Your task to perform on an android device: change your default location settings in chrome Image 0: 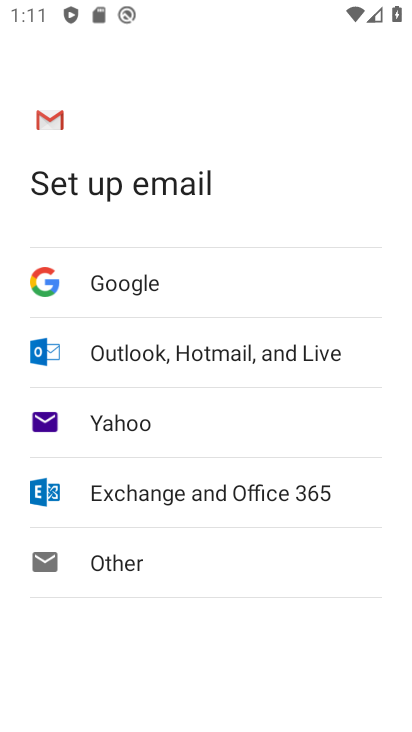
Step 0: press back button
Your task to perform on an android device: change your default location settings in chrome Image 1: 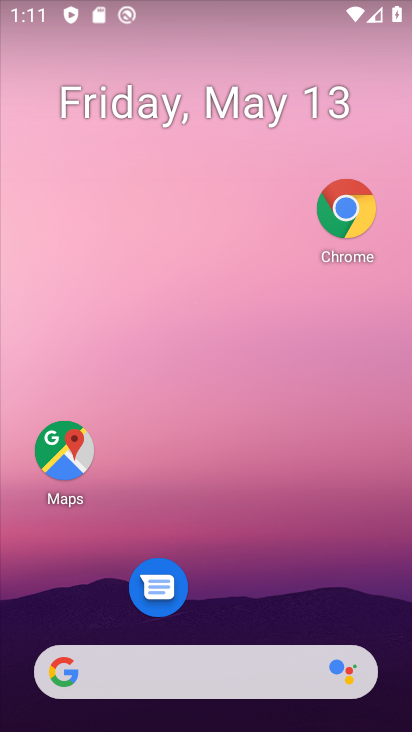
Step 1: click (350, 205)
Your task to perform on an android device: change your default location settings in chrome Image 2: 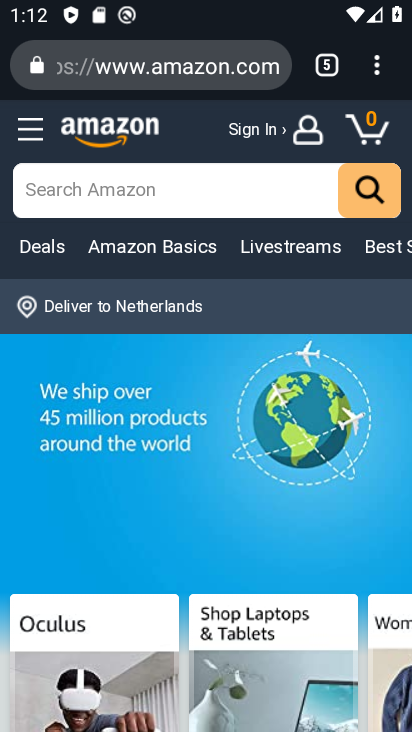
Step 2: drag from (374, 69) to (166, 633)
Your task to perform on an android device: change your default location settings in chrome Image 3: 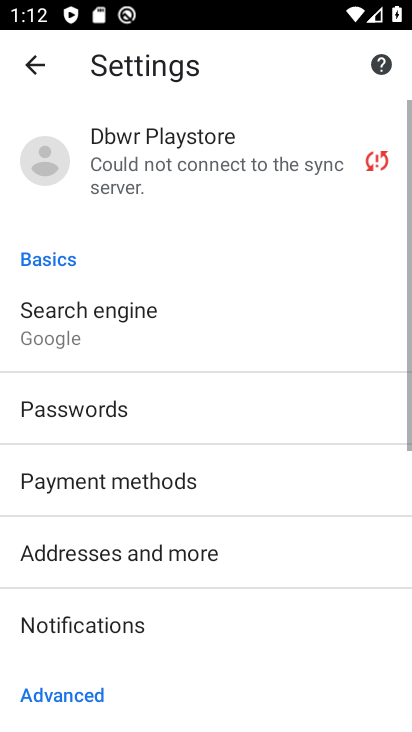
Step 3: drag from (167, 630) to (255, 182)
Your task to perform on an android device: change your default location settings in chrome Image 4: 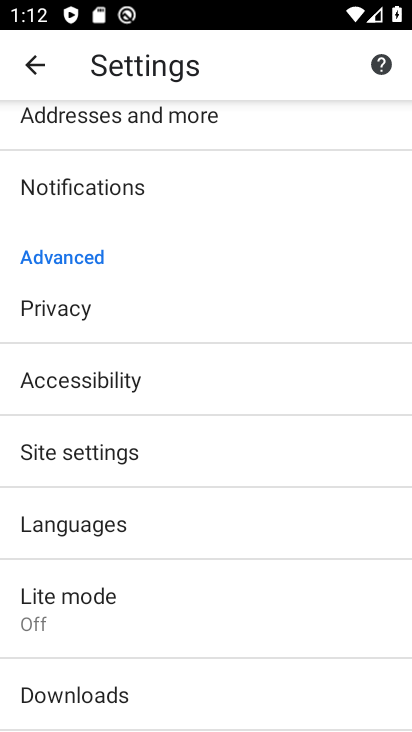
Step 4: drag from (149, 656) to (222, 228)
Your task to perform on an android device: change your default location settings in chrome Image 5: 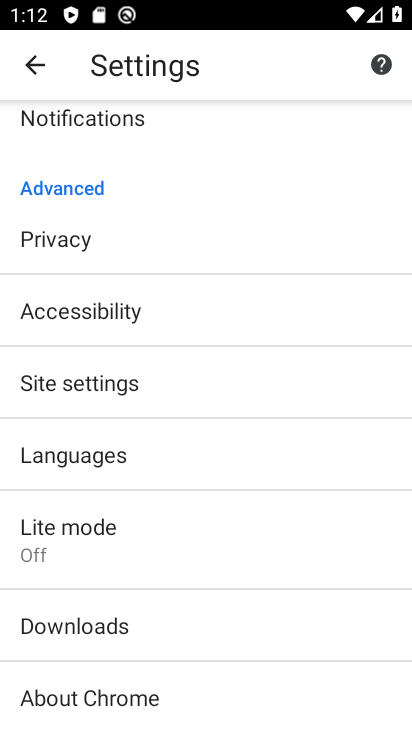
Step 5: click (65, 384)
Your task to perform on an android device: change your default location settings in chrome Image 6: 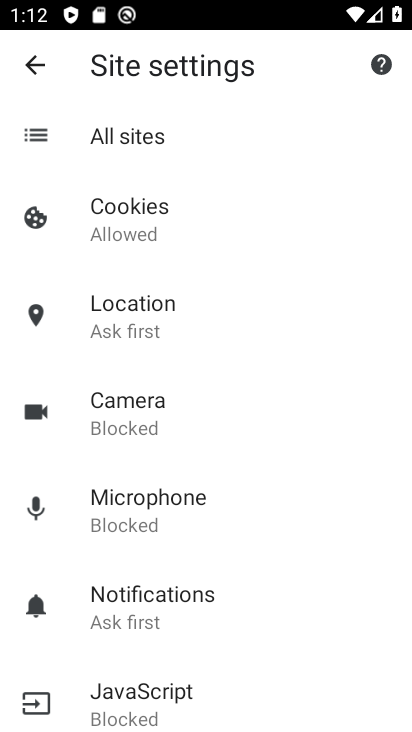
Step 6: click (185, 319)
Your task to perform on an android device: change your default location settings in chrome Image 7: 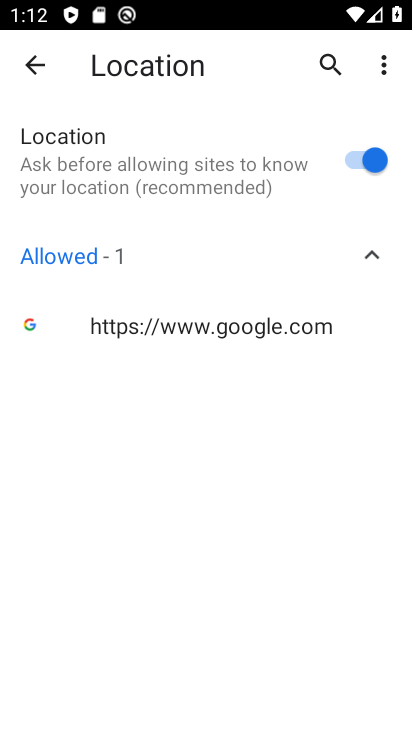
Step 7: click (247, 334)
Your task to perform on an android device: change your default location settings in chrome Image 8: 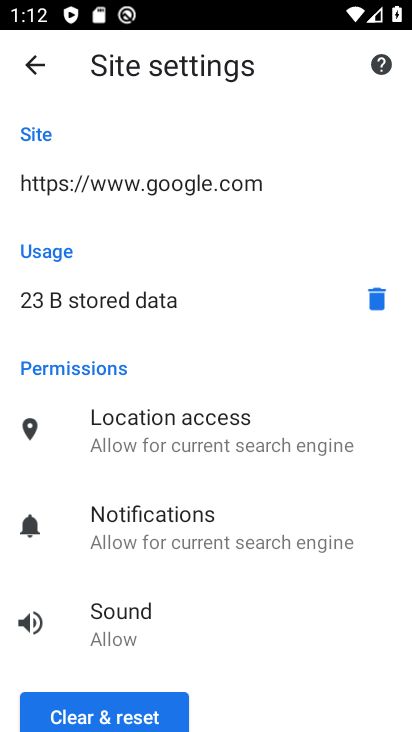
Step 8: click (213, 427)
Your task to perform on an android device: change your default location settings in chrome Image 9: 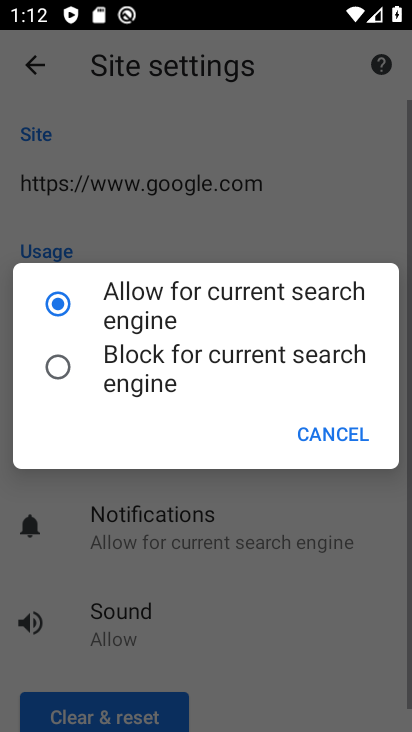
Step 9: click (79, 363)
Your task to perform on an android device: change your default location settings in chrome Image 10: 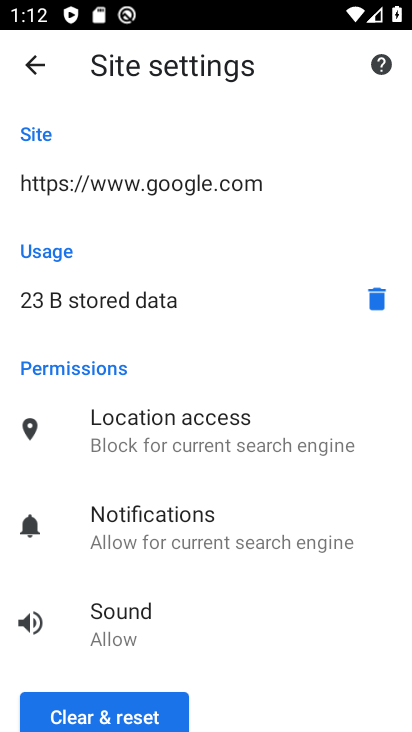
Step 10: task complete